Your task to perform on an android device: Open calendar and show me the second week of next month Image 0: 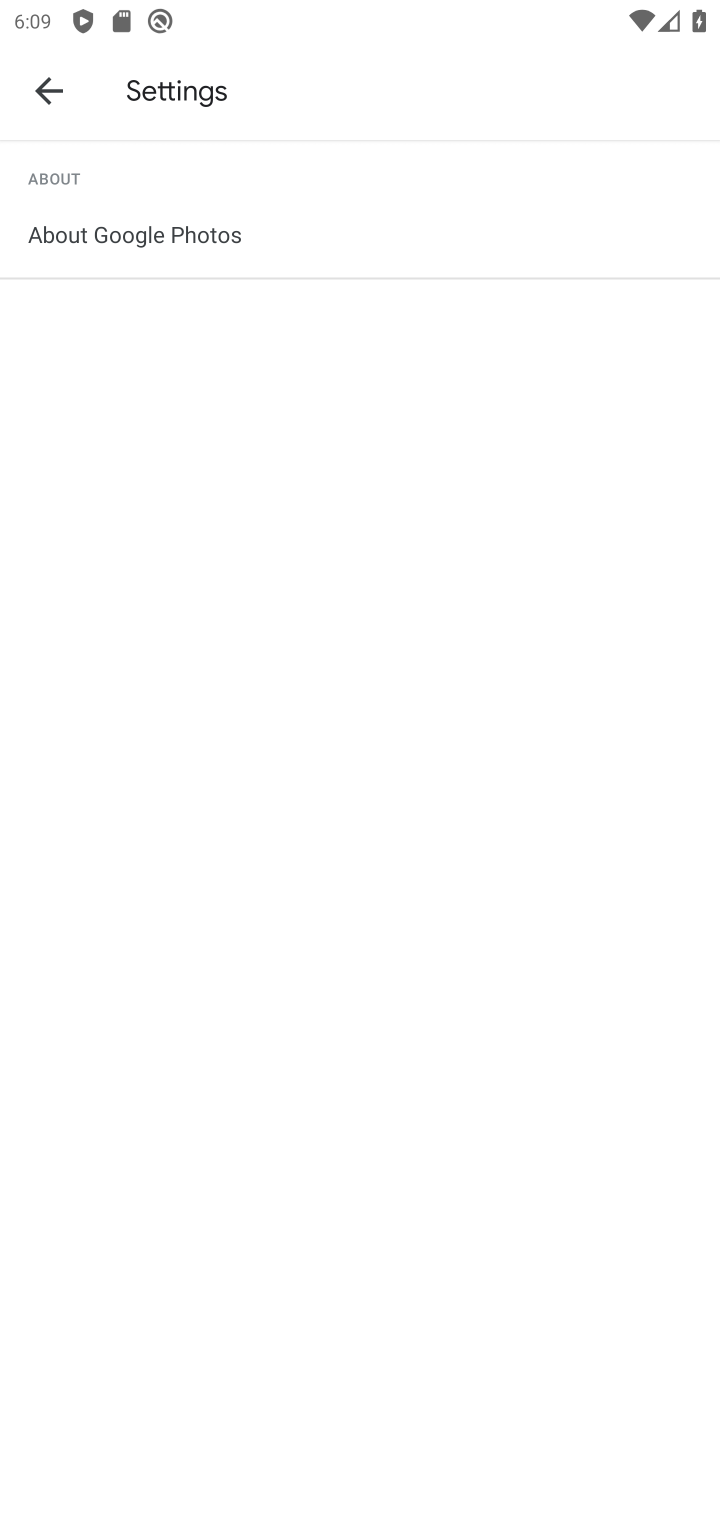
Step 0: press home button
Your task to perform on an android device: Open calendar and show me the second week of next month Image 1: 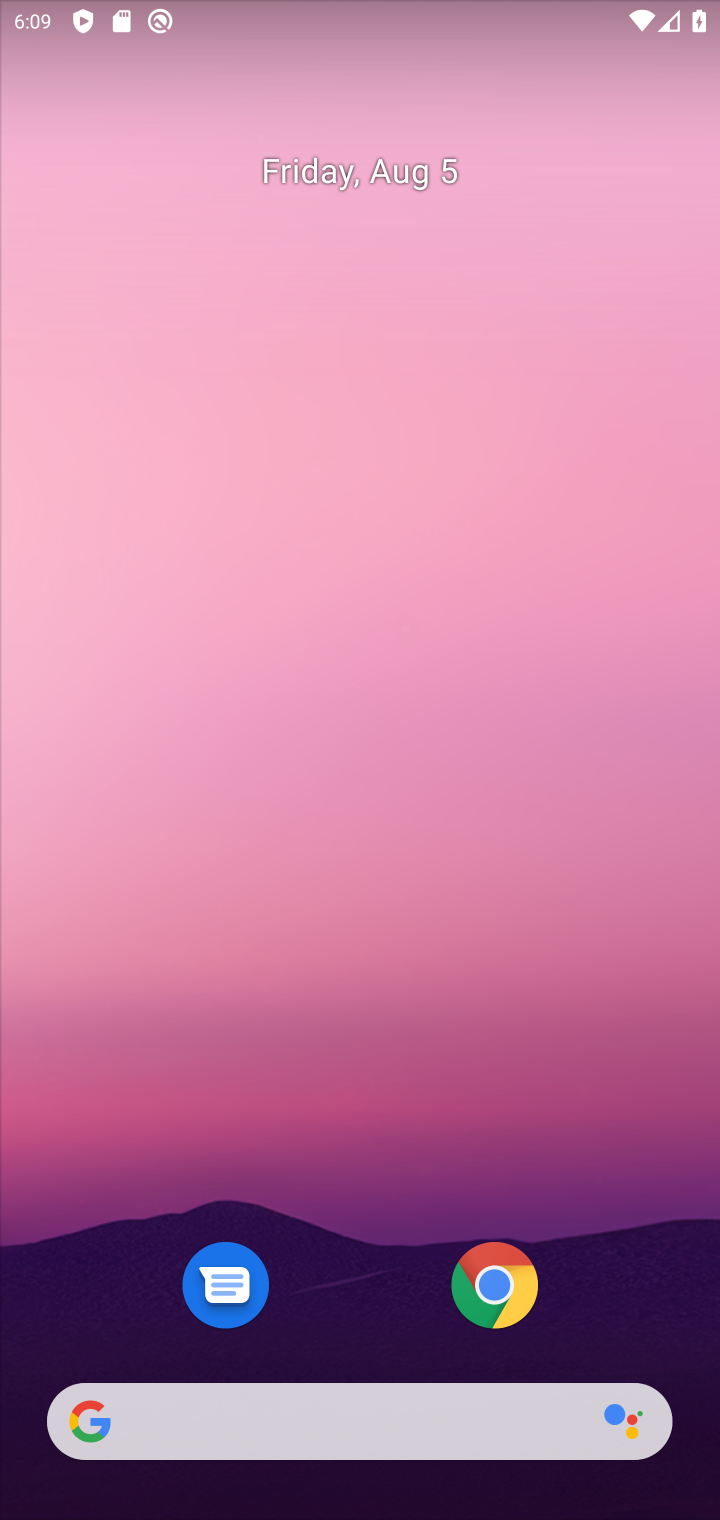
Step 1: drag from (365, 1252) to (254, 18)
Your task to perform on an android device: Open calendar and show me the second week of next month Image 2: 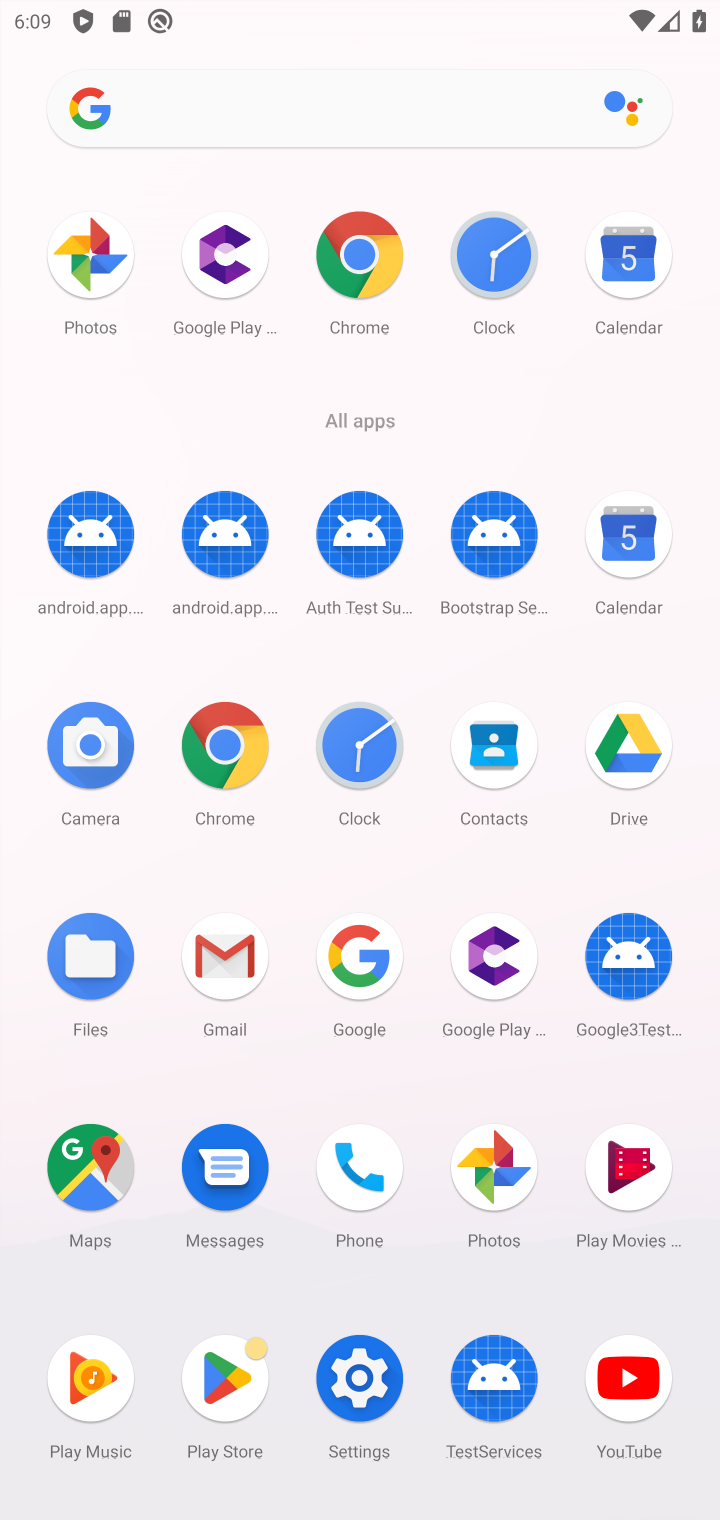
Step 2: click (628, 524)
Your task to perform on an android device: Open calendar and show me the second week of next month Image 3: 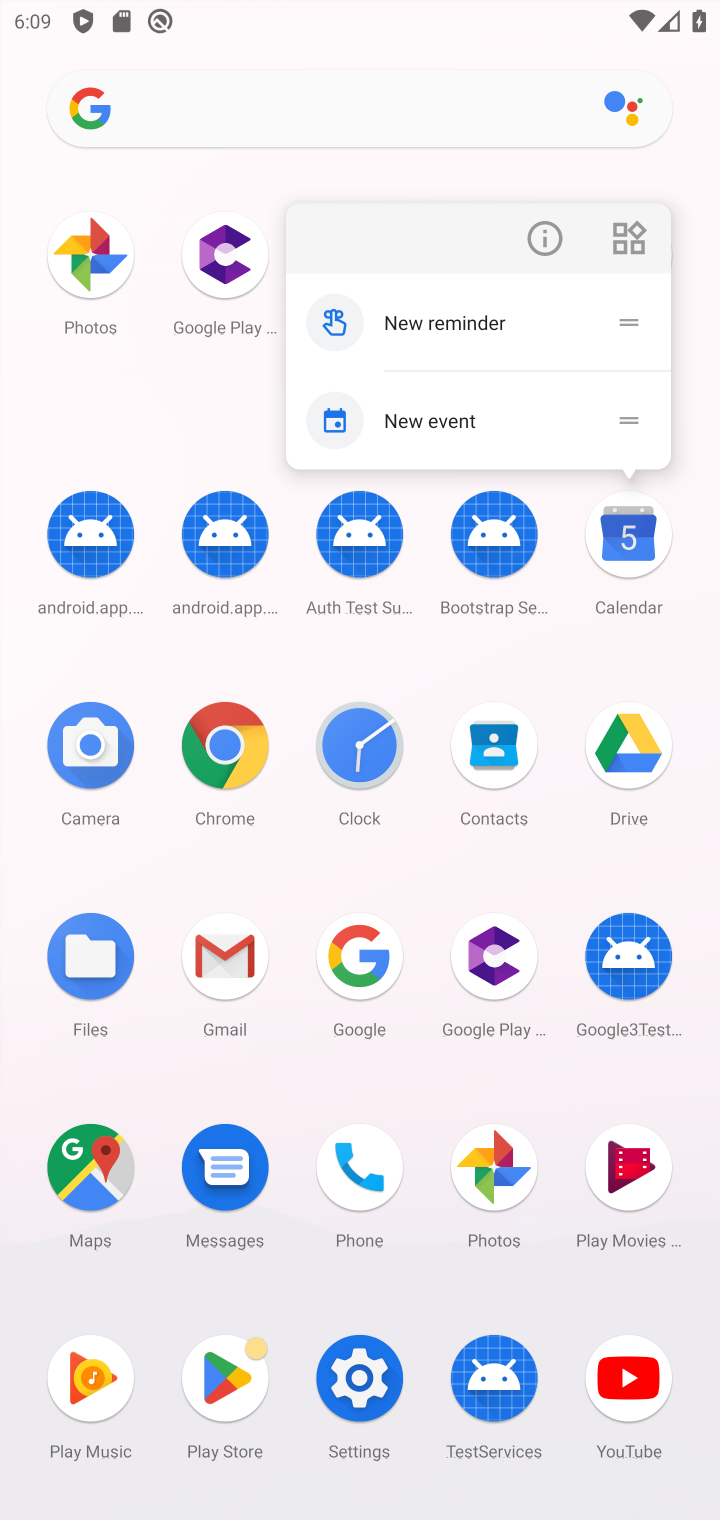
Step 3: click (628, 547)
Your task to perform on an android device: Open calendar and show me the second week of next month Image 4: 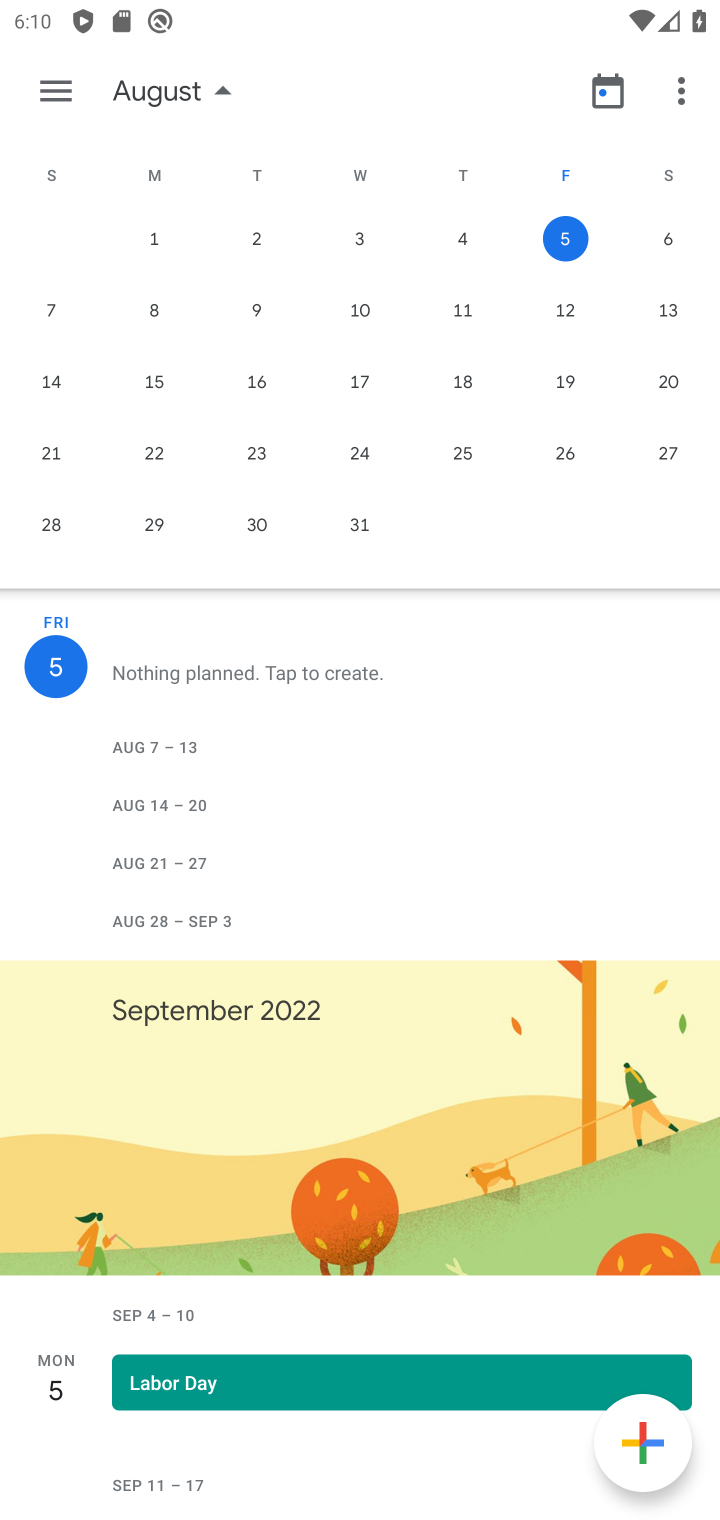
Step 4: drag from (667, 335) to (70, 299)
Your task to perform on an android device: Open calendar and show me the second week of next month Image 5: 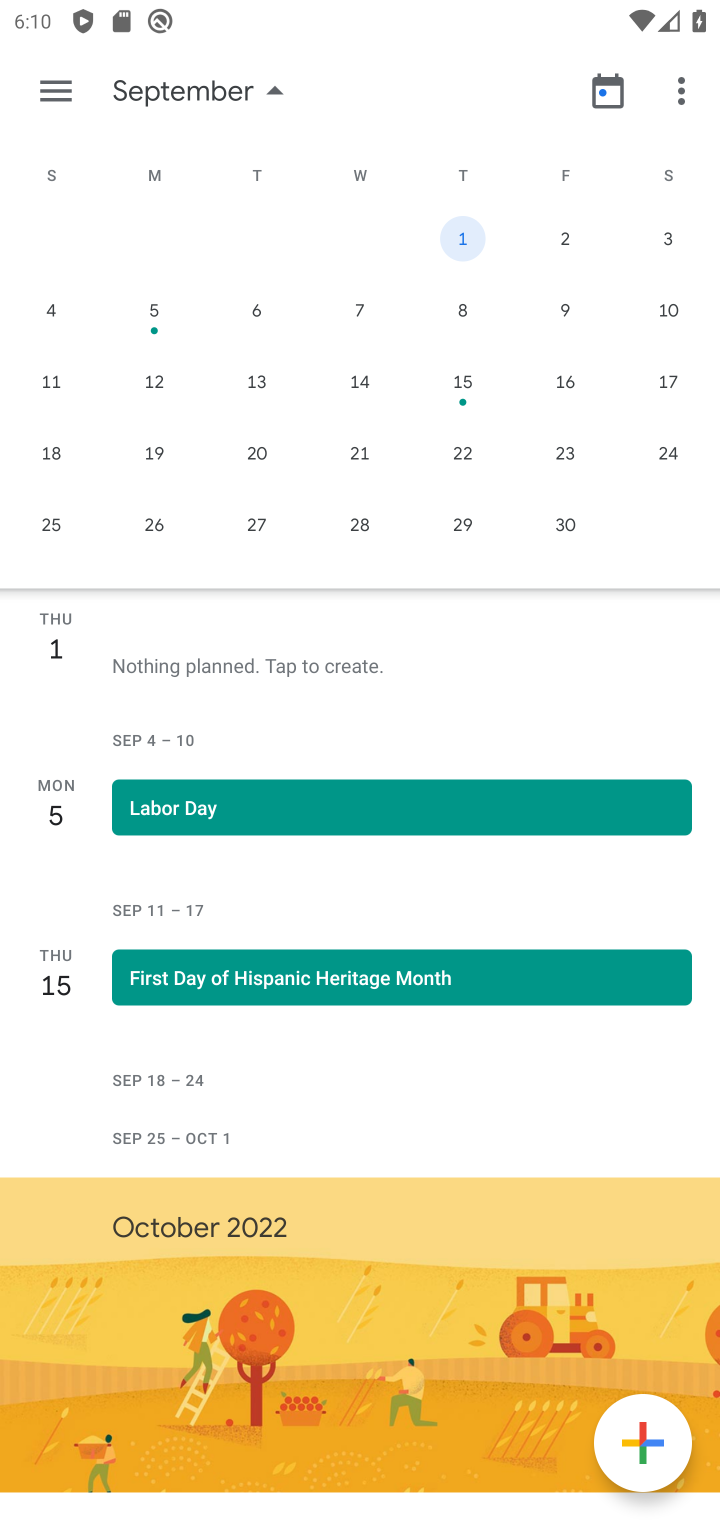
Step 5: click (61, 315)
Your task to perform on an android device: Open calendar and show me the second week of next month Image 6: 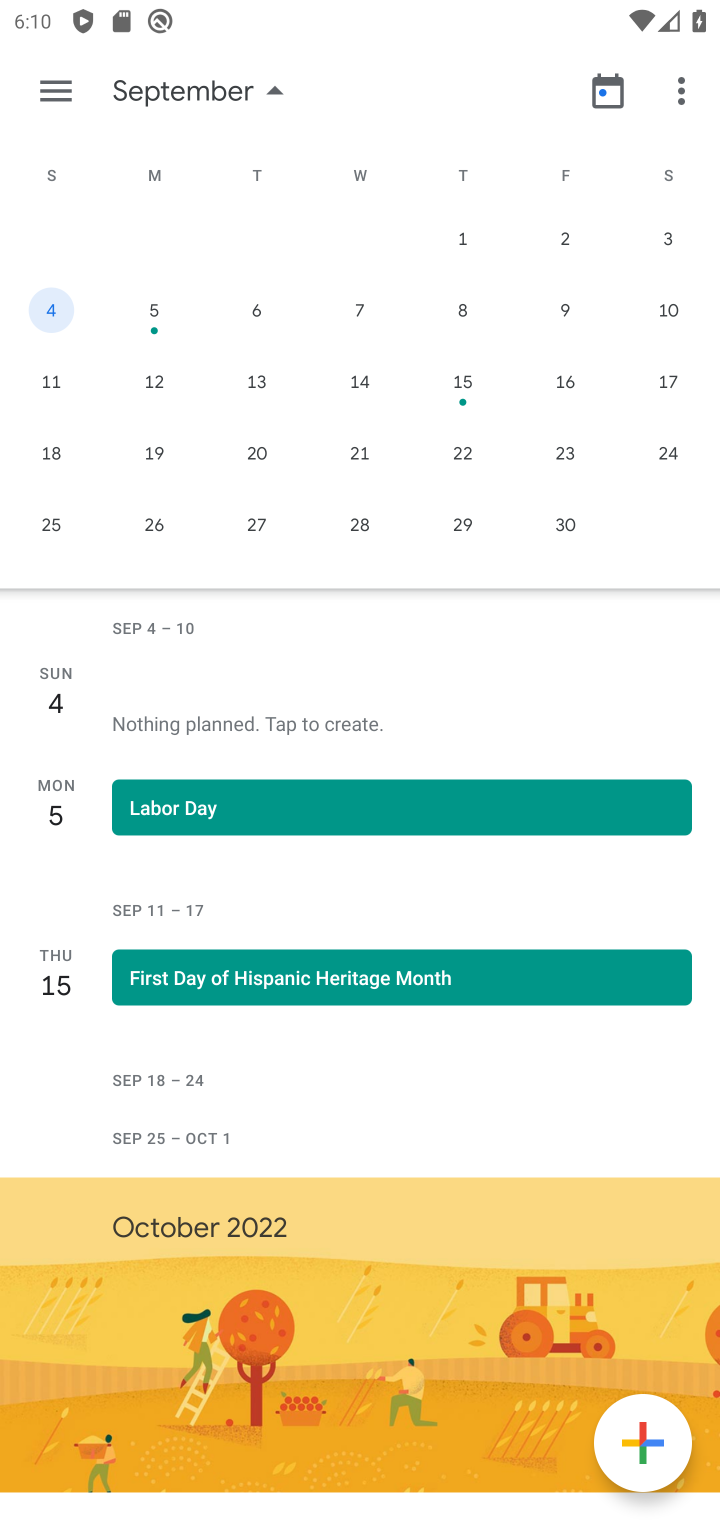
Step 6: task complete